Your task to perform on an android device: Open display settings Image 0: 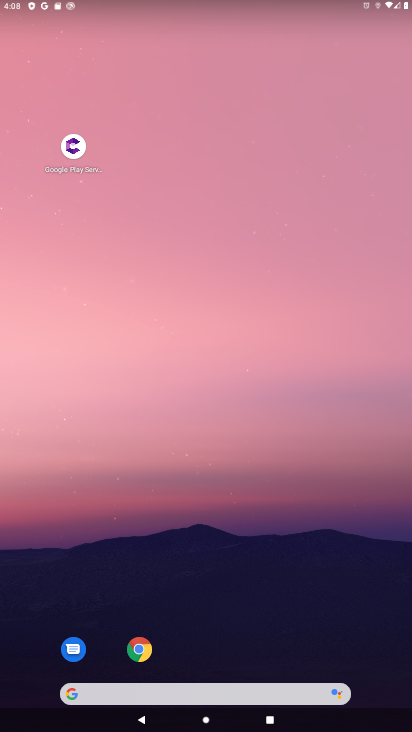
Step 0: drag from (274, 627) to (239, 16)
Your task to perform on an android device: Open display settings Image 1: 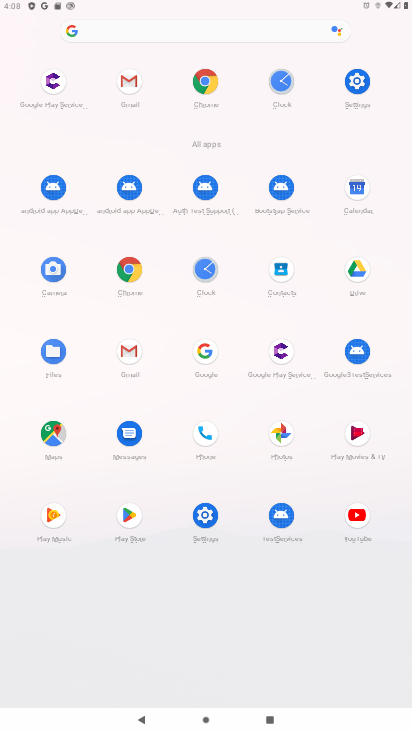
Step 1: click (354, 77)
Your task to perform on an android device: Open display settings Image 2: 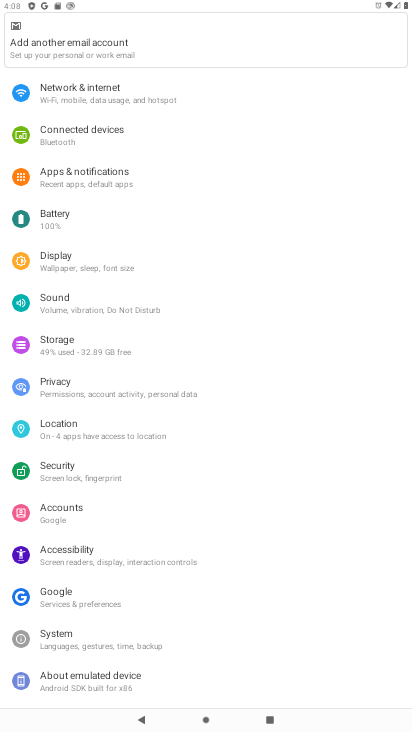
Step 2: click (141, 263)
Your task to perform on an android device: Open display settings Image 3: 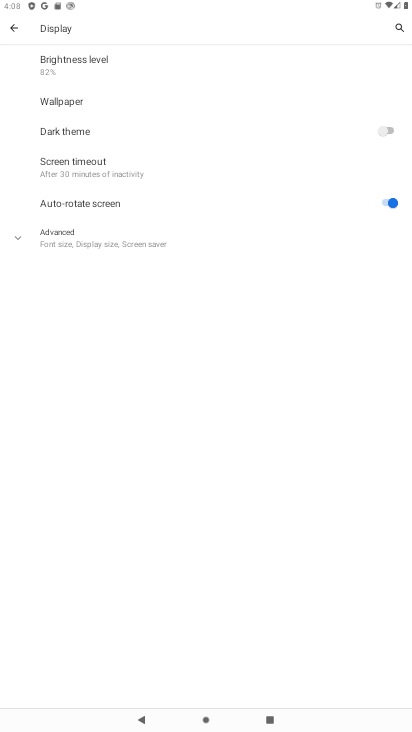
Step 3: task complete